Your task to perform on an android device: open app "WhatsApp Messenger" Image 0: 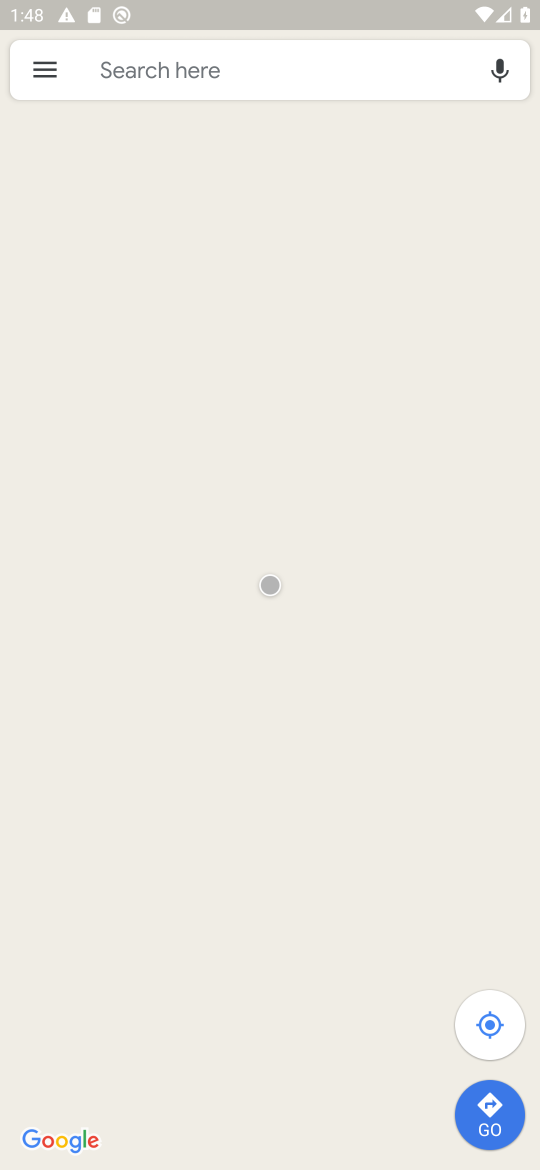
Step 0: press home button
Your task to perform on an android device: open app "WhatsApp Messenger" Image 1: 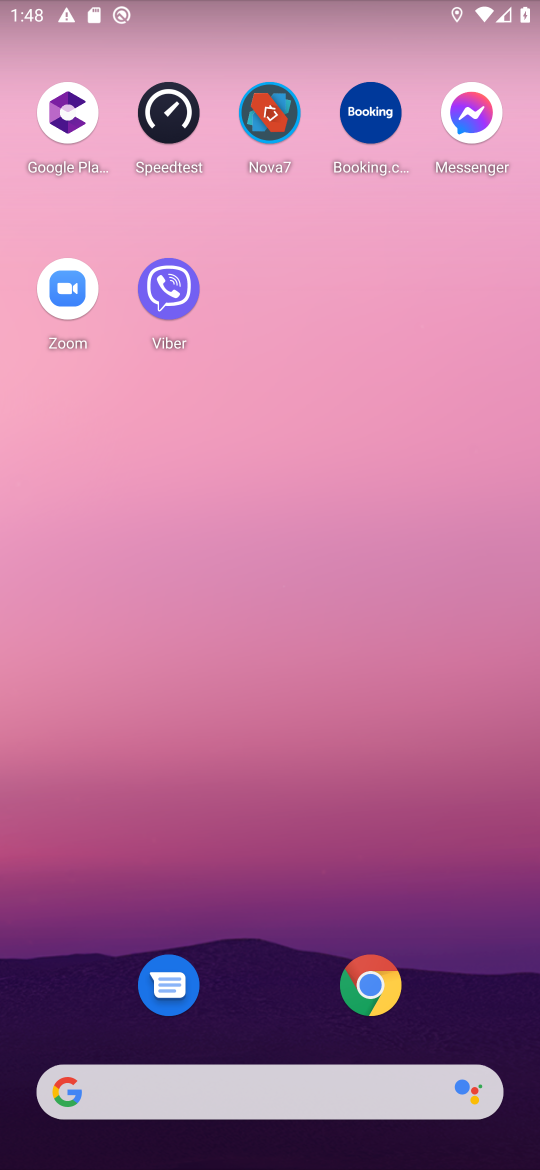
Step 1: drag from (334, 911) to (286, 32)
Your task to perform on an android device: open app "WhatsApp Messenger" Image 2: 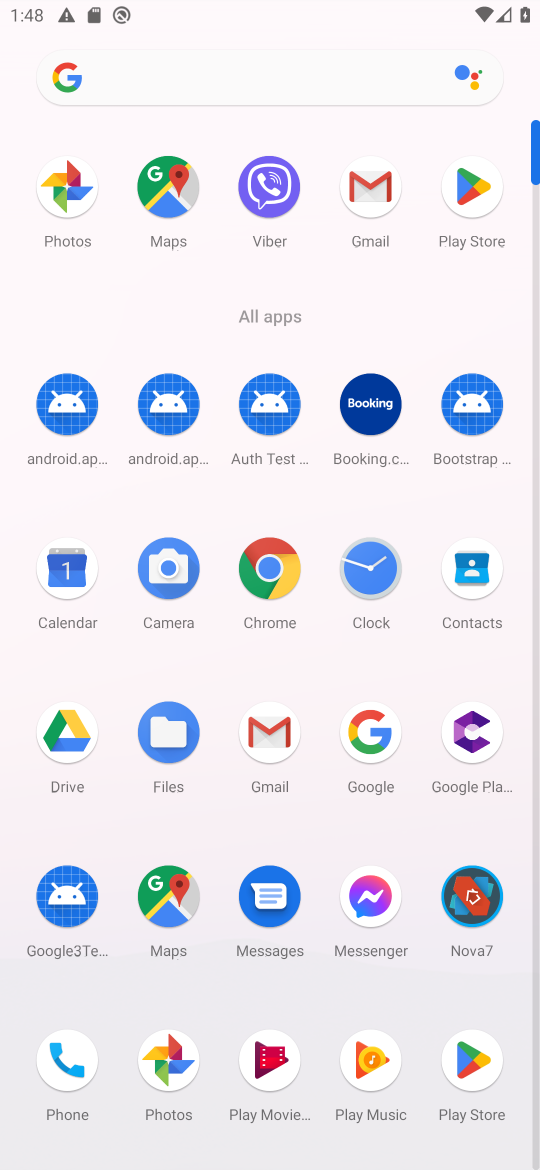
Step 2: click (473, 203)
Your task to perform on an android device: open app "WhatsApp Messenger" Image 3: 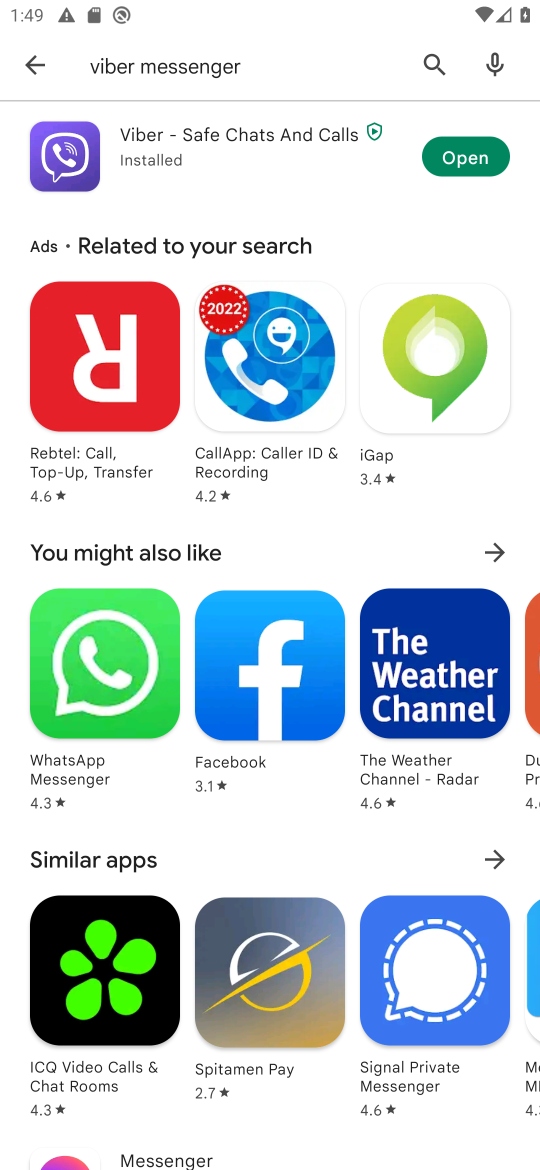
Step 3: click (133, 651)
Your task to perform on an android device: open app "WhatsApp Messenger" Image 4: 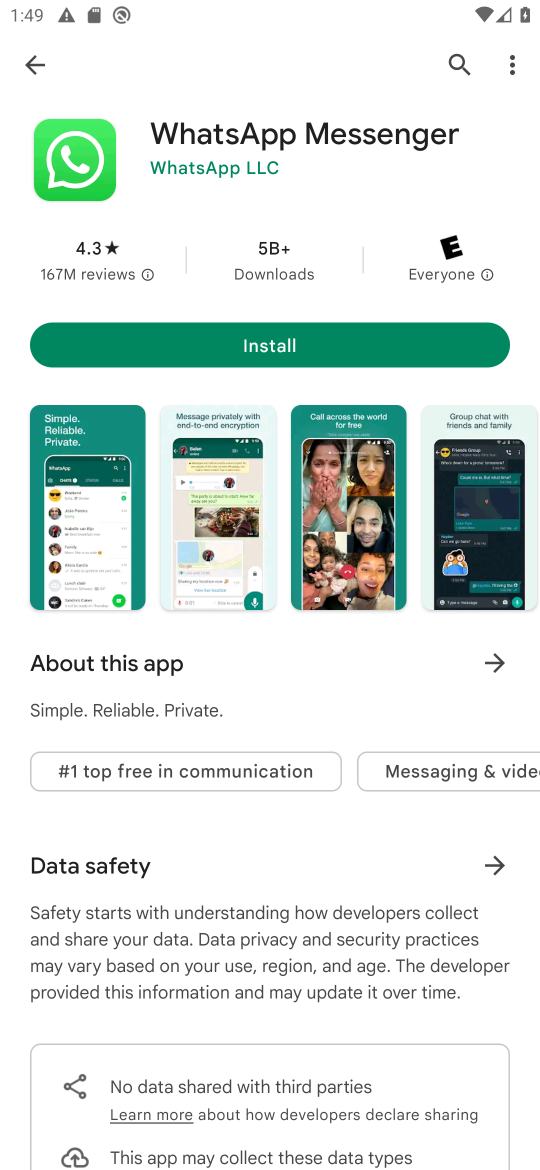
Step 4: task complete